Your task to perform on an android device: Go to location settings Image 0: 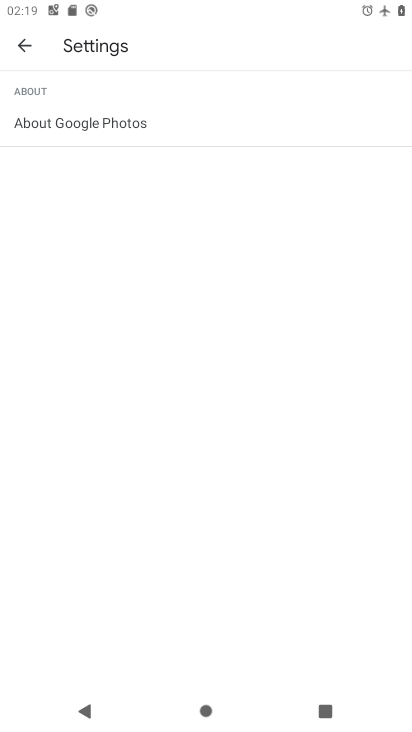
Step 0: press home button
Your task to perform on an android device: Go to location settings Image 1: 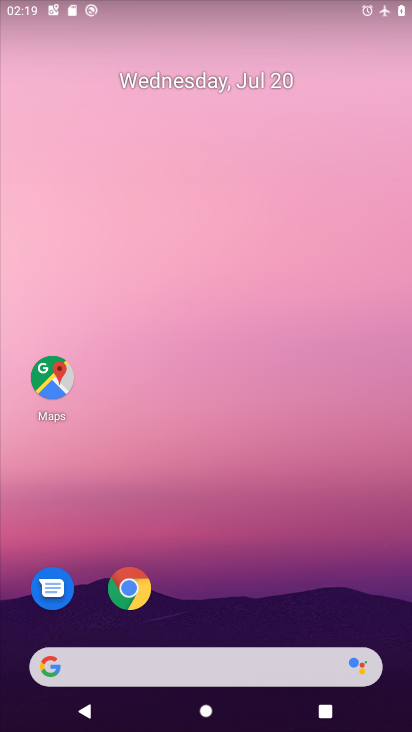
Step 1: drag from (193, 629) to (196, 146)
Your task to perform on an android device: Go to location settings Image 2: 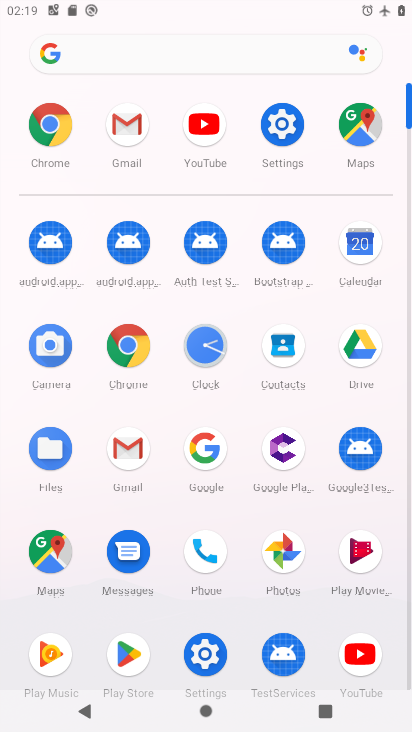
Step 2: click (286, 114)
Your task to perform on an android device: Go to location settings Image 3: 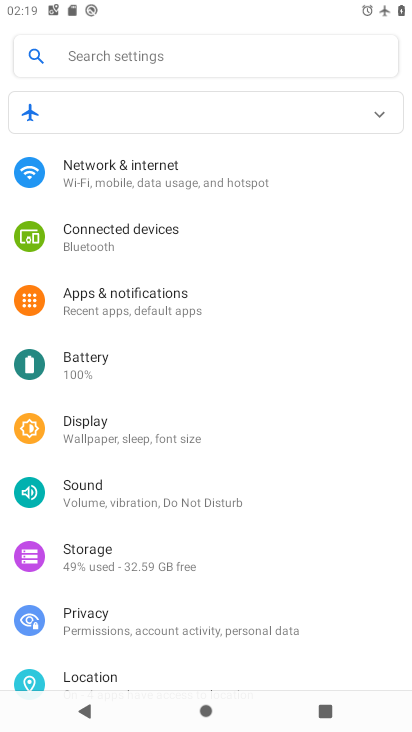
Step 3: drag from (160, 603) to (181, 349)
Your task to perform on an android device: Go to location settings Image 4: 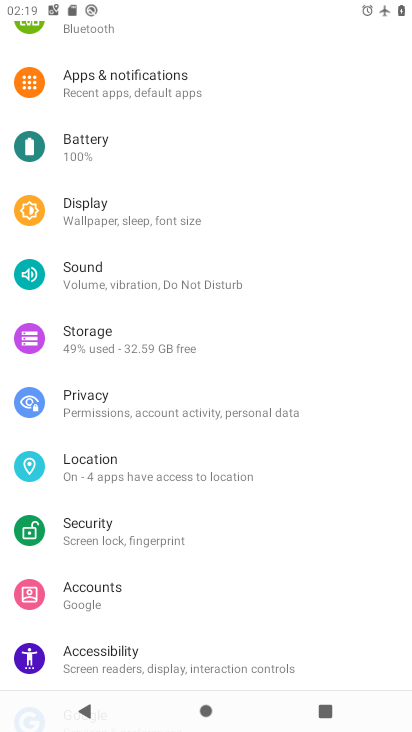
Step 4: click (128, 463)
Your task to perform on an android device: Go to location settings Image 5: 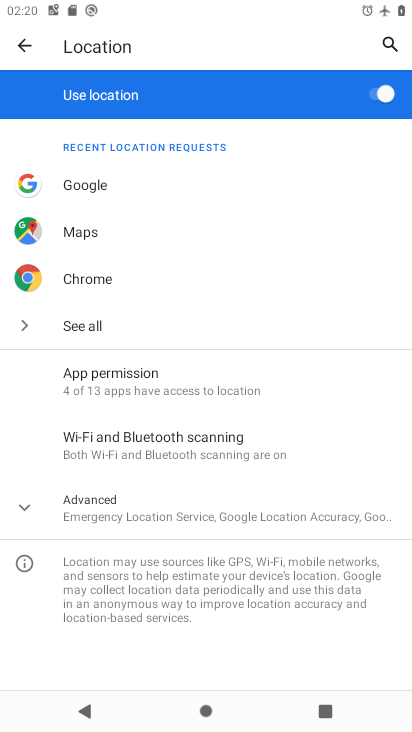
Step 5: task complete